Your task to perform on an android device: What is the capital of India? Image 0: 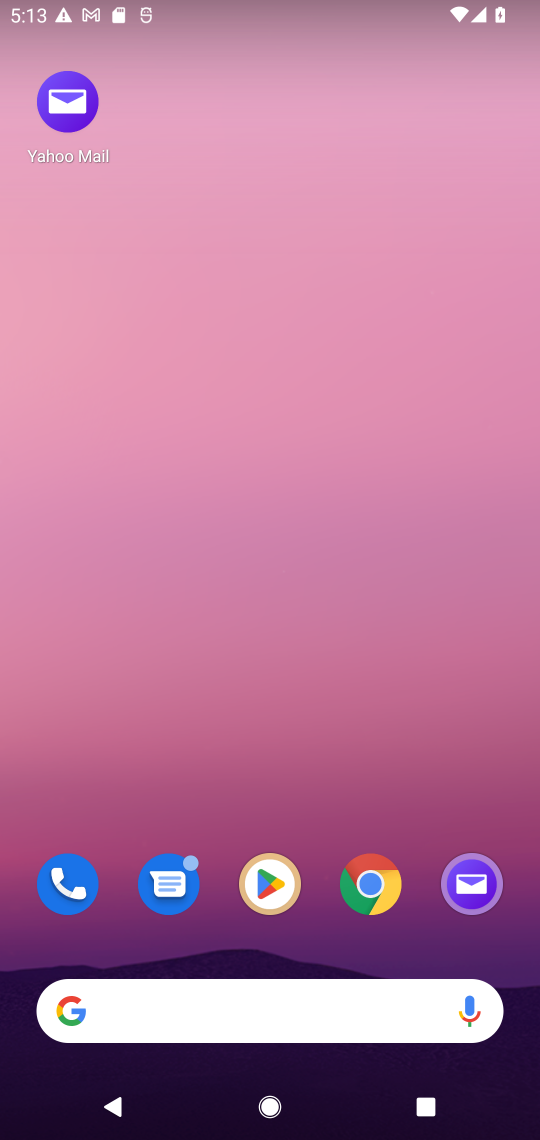
Step 0: drag from (326, 966) to (210, 55)
Your task to perform on an android device: What is the capital of India? Image 1: 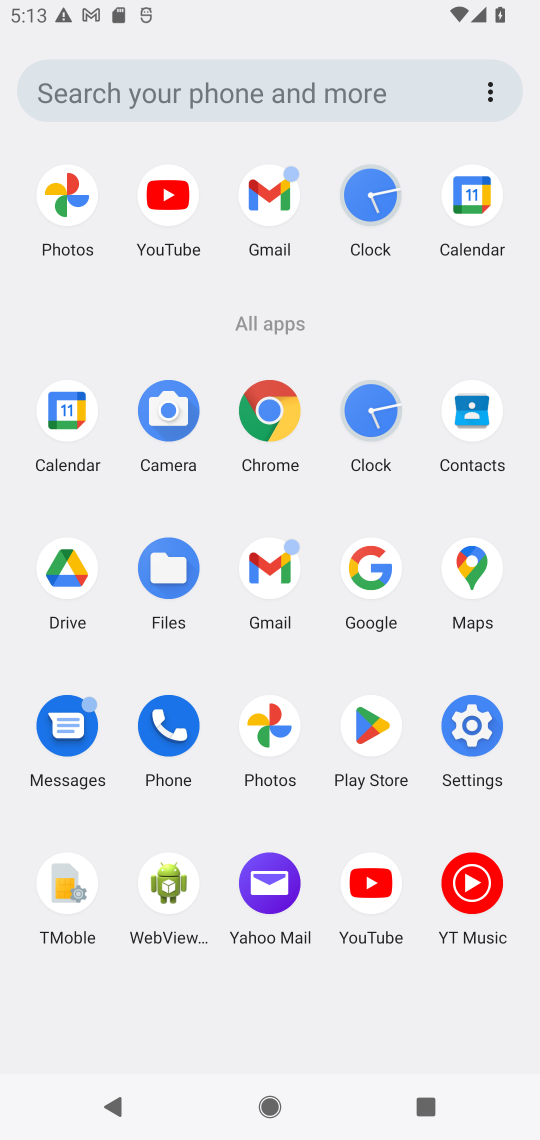
Step 1: click (268, 408)
Your task to perform on an android device: What is the capital of India? Image 2: 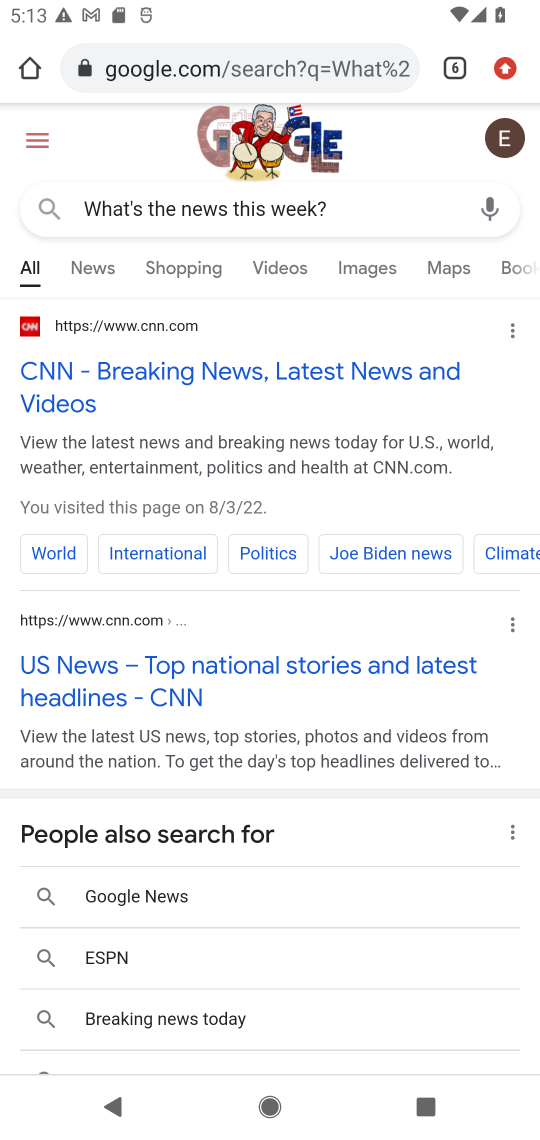
Step 2: click (356, 201)
Your task to perform on an android device: What is the capital of India? Image 3: 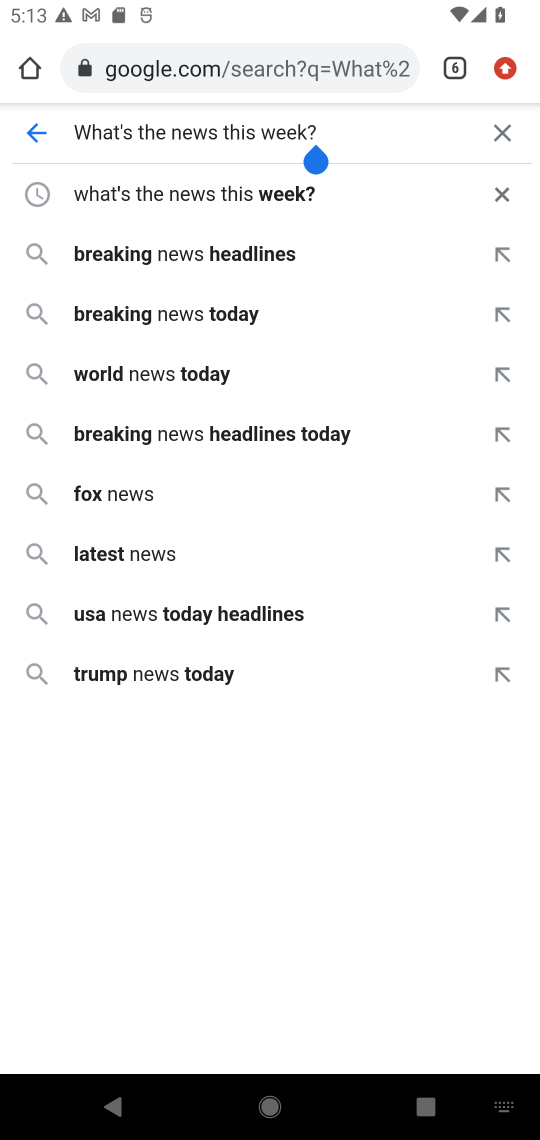
Step 3: click (508, 126)
Your task to perform on an android device: What is the capital of India? Image 4: 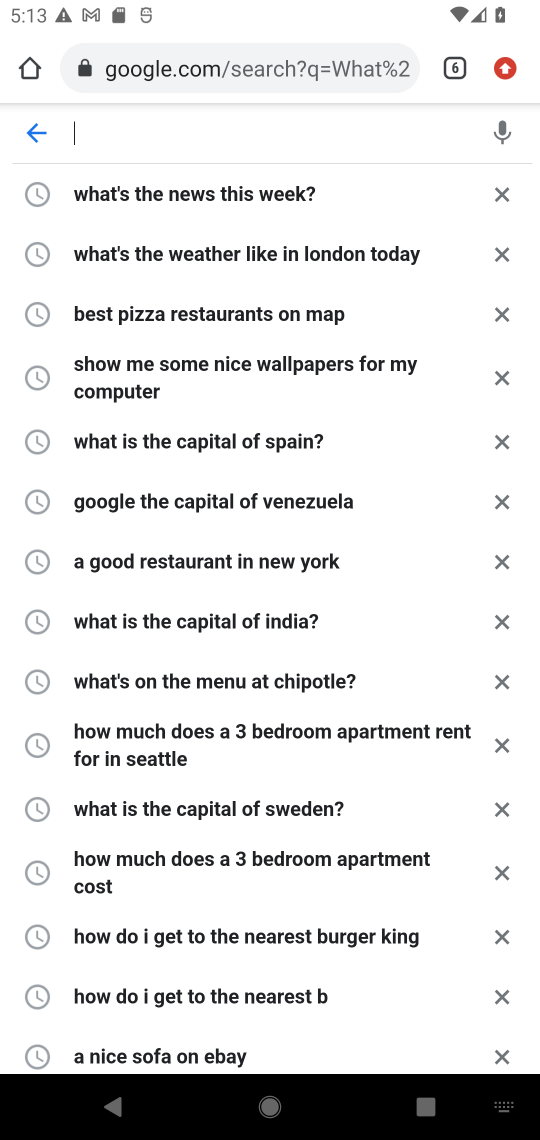
Step 4: type "What is the capital of India?"
Your task to perform on an android device: What is the capital of India? Image 5: 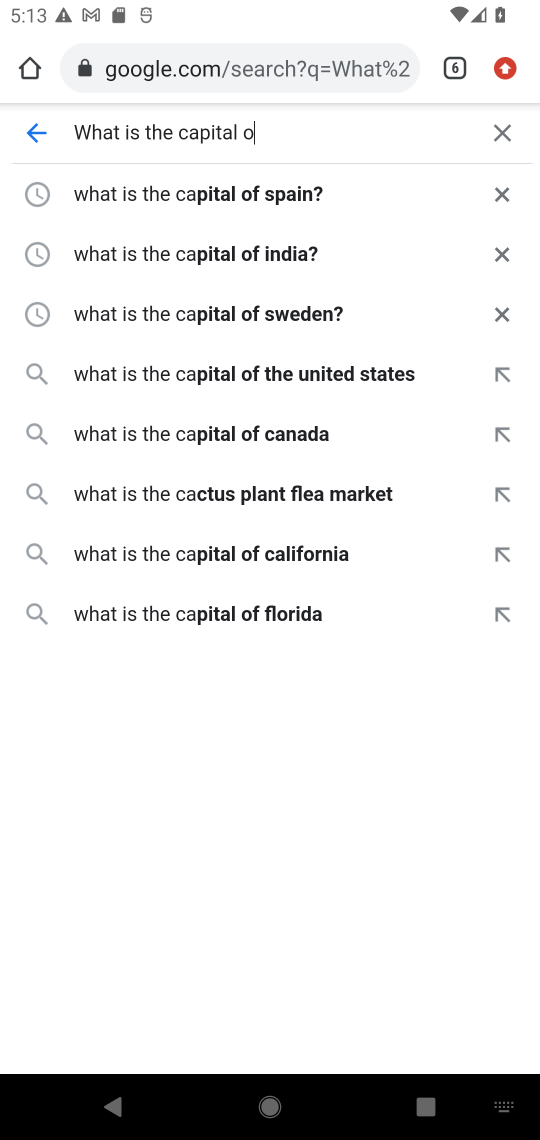
Step 5: type ""
Your task to perform on an android device: What is the capital of India? Image 6: 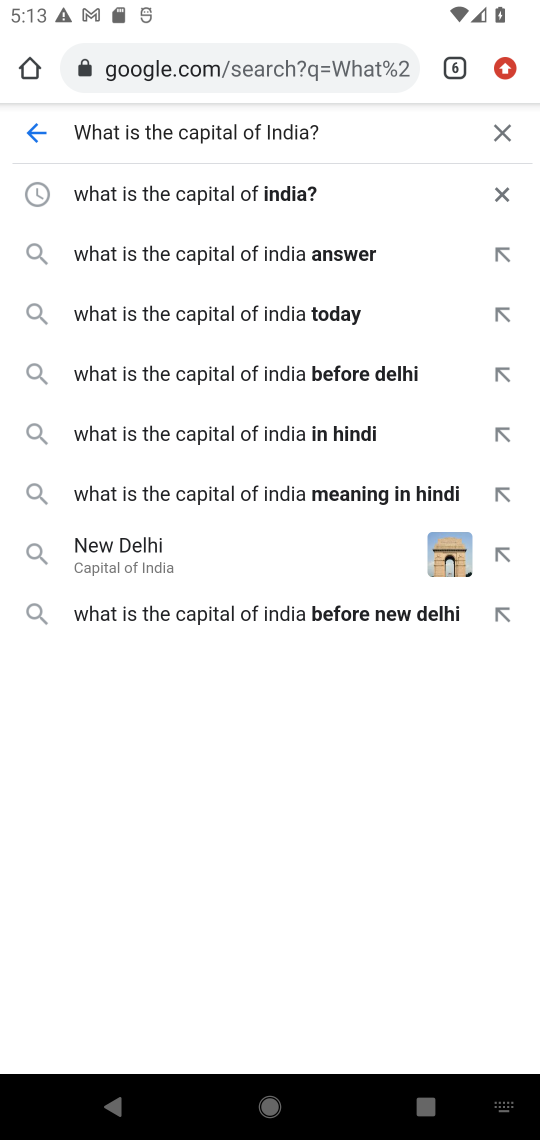
Step 6: click (220, 133)
Your task to perform on an android device: What is the capital of India? Image 7: 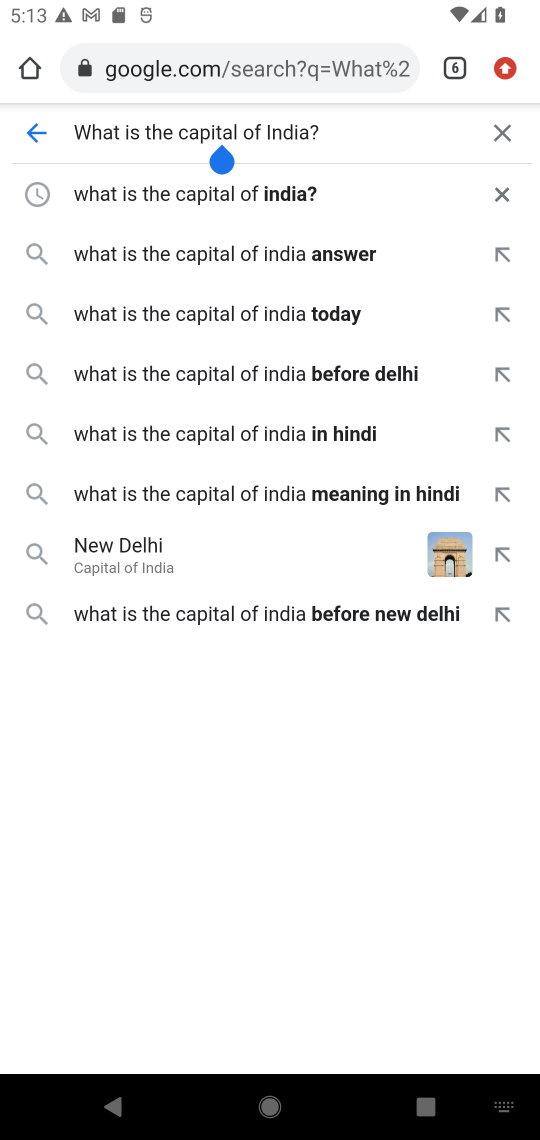
Step 7: click (206, 186)
Your task to perform on an android device: What is the capital of India? Image 8: 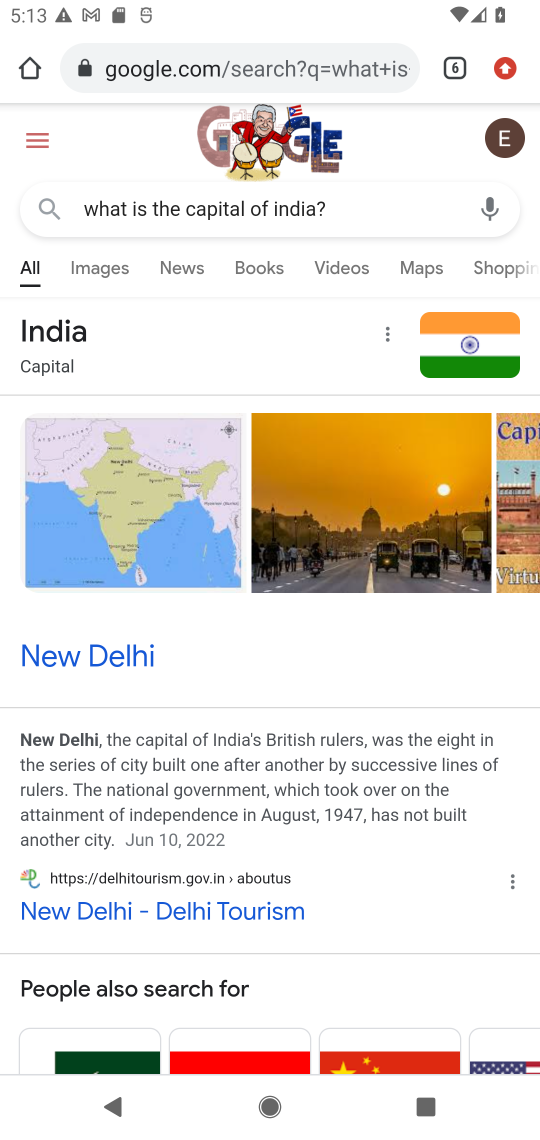
Step 8: task complete